Your task to perform on an android device: toggle priority inbox in the gmail app Image 0: 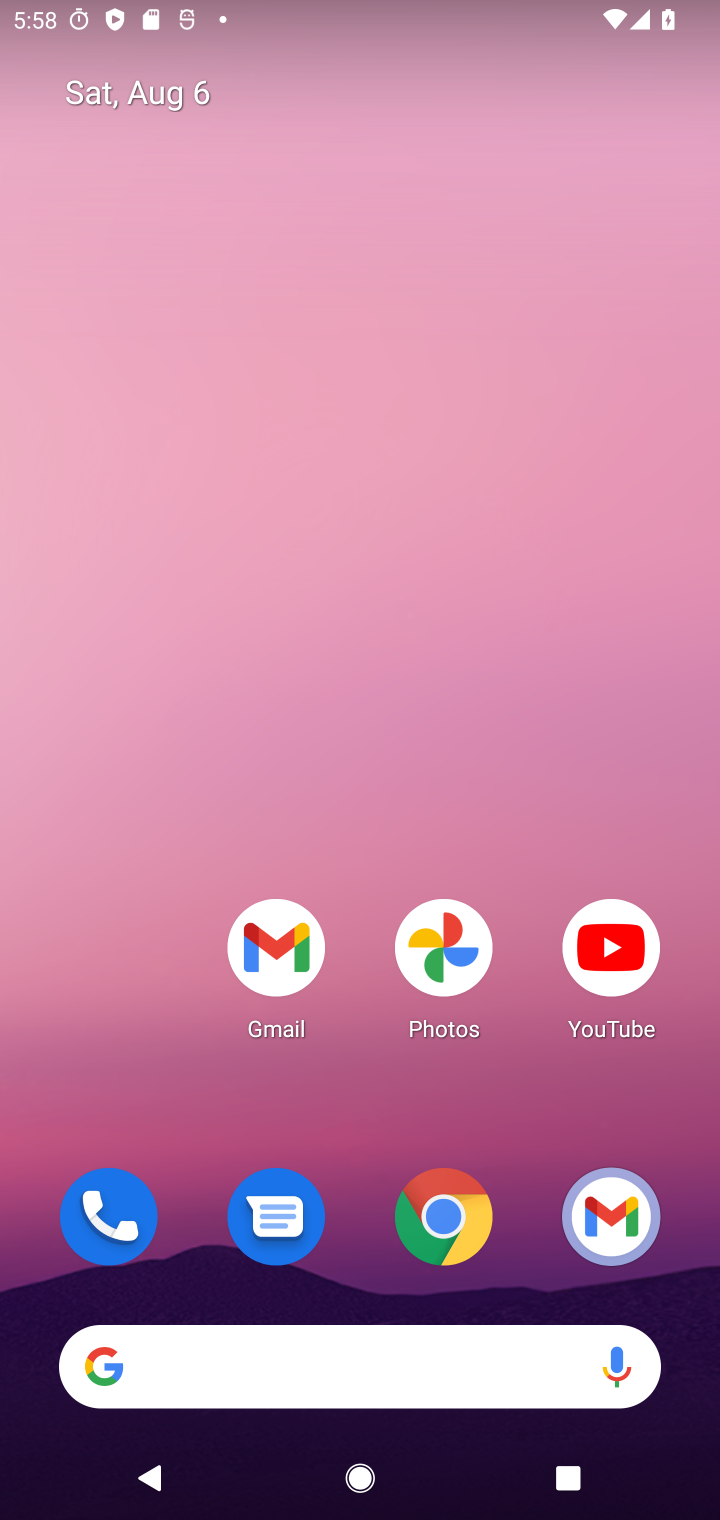
Step 0: drag from (354, 907) to (305, 101)
Your task to perform on an android device: toggle priority inbox in the gmail app Image 1: 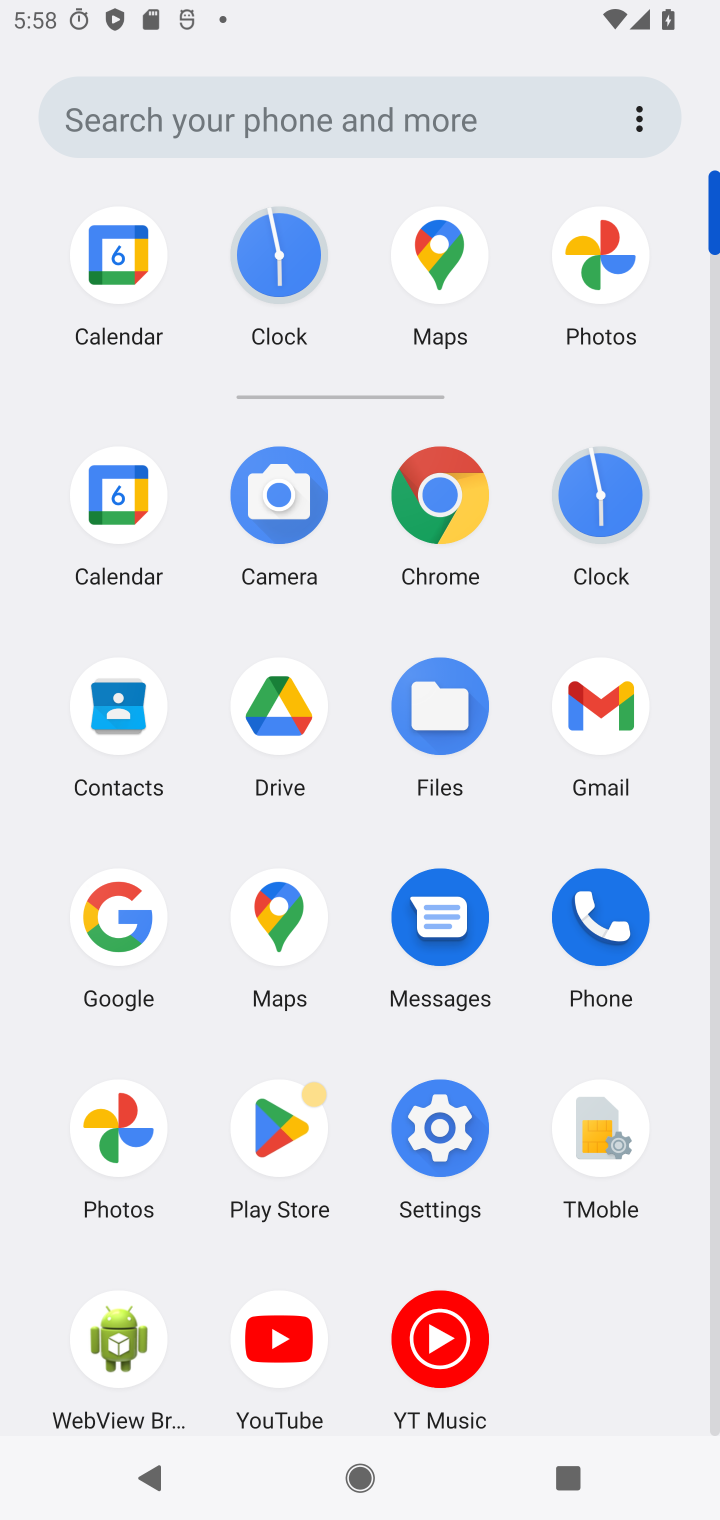
Step 1: click (603, 684)
Your task to perform on an android device: toggle priority inbox in the gmail app Image 2: 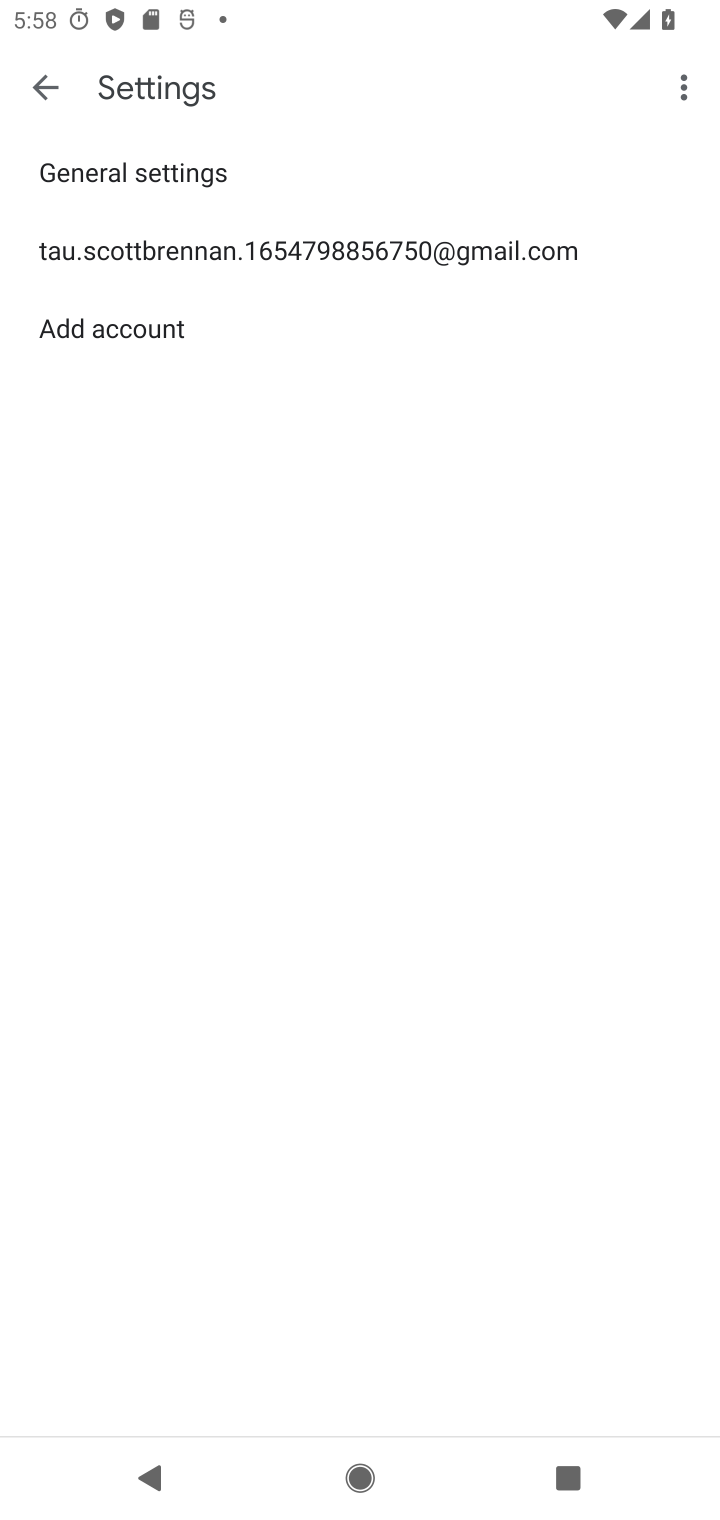
Step 2: click (274, 233)
Your task to perform on an android device: toggle priority inbox in the gmail app Image 3: 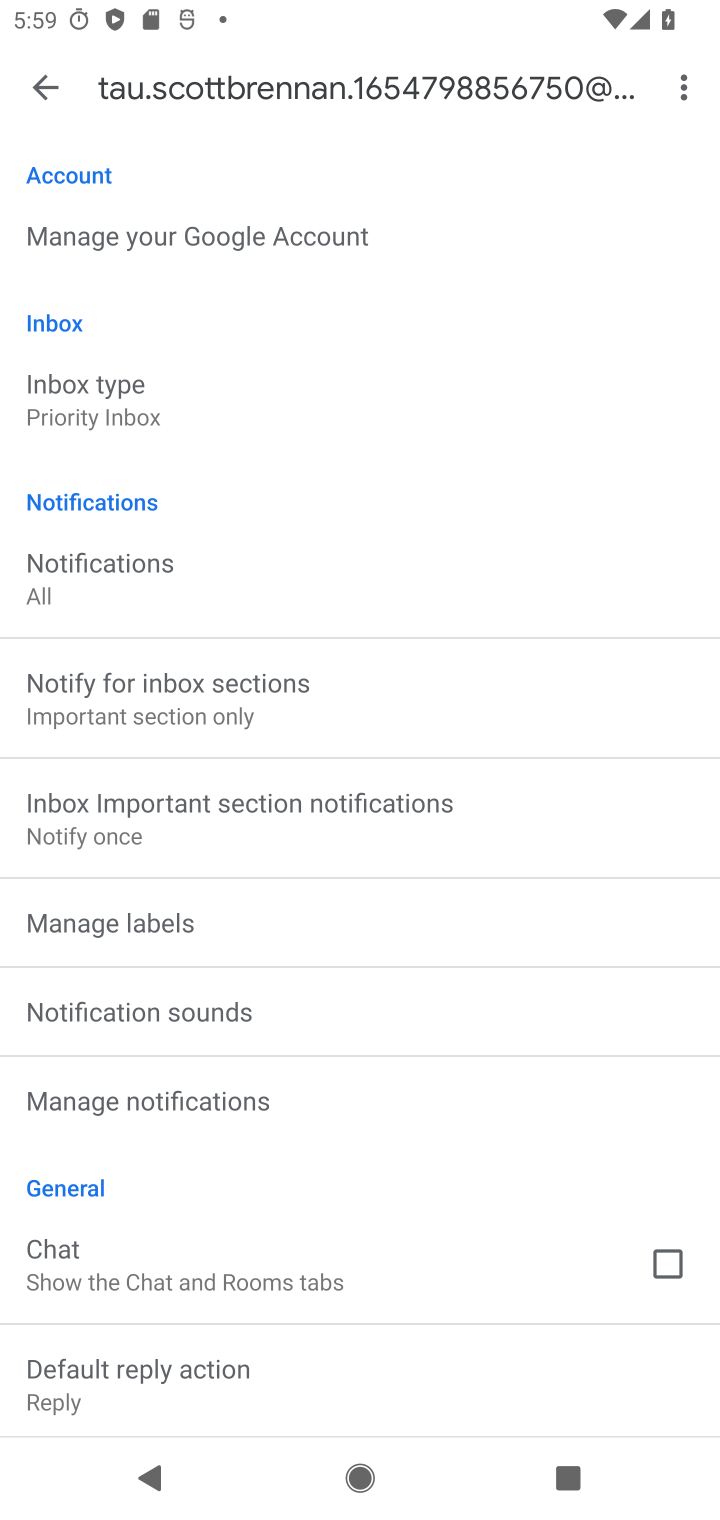
Step 3: click (109, 408)
Your task to perform on an android device: toggle priority inbox in the gmail app Image 4: 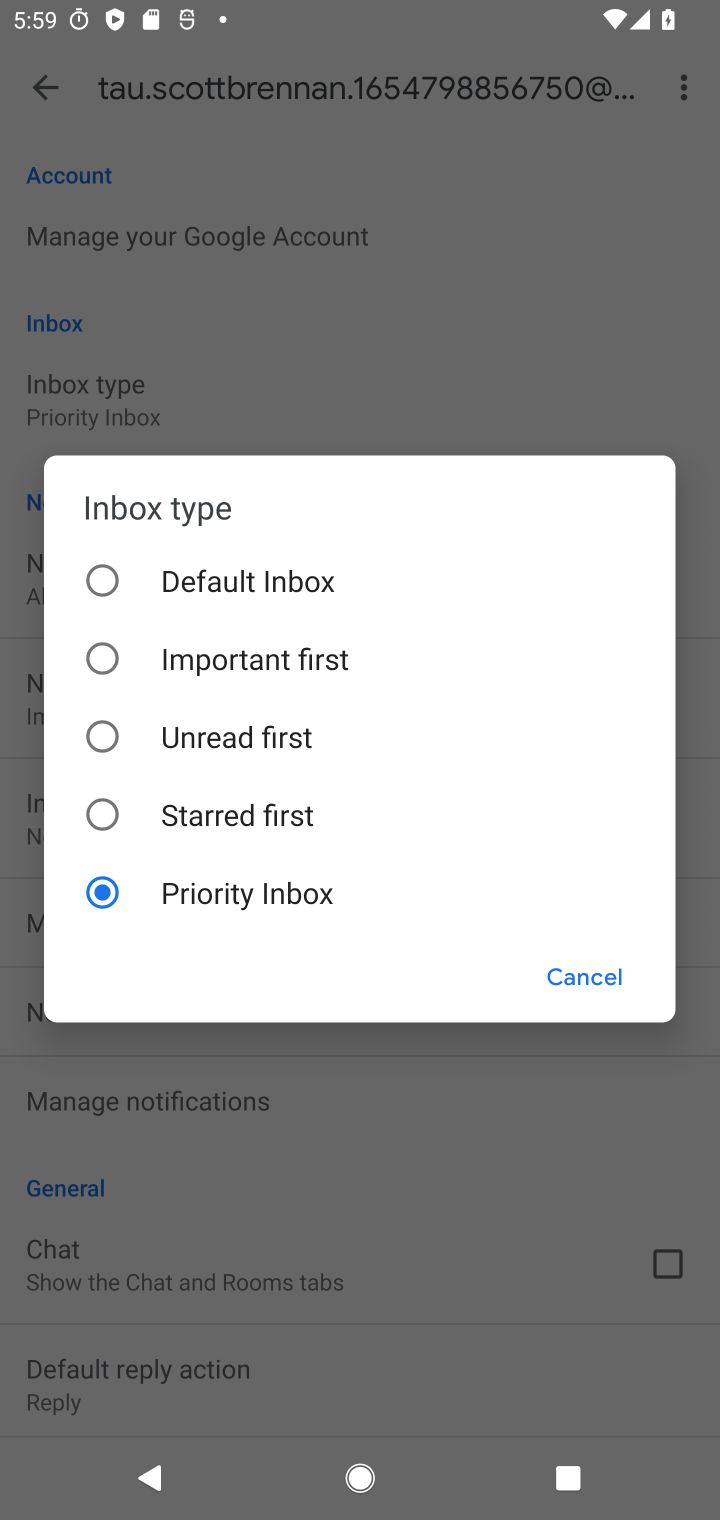
Step 4: click (247, 586)
Your task to perform on an android device: toggle priority inbox in the gmail app Image 5: 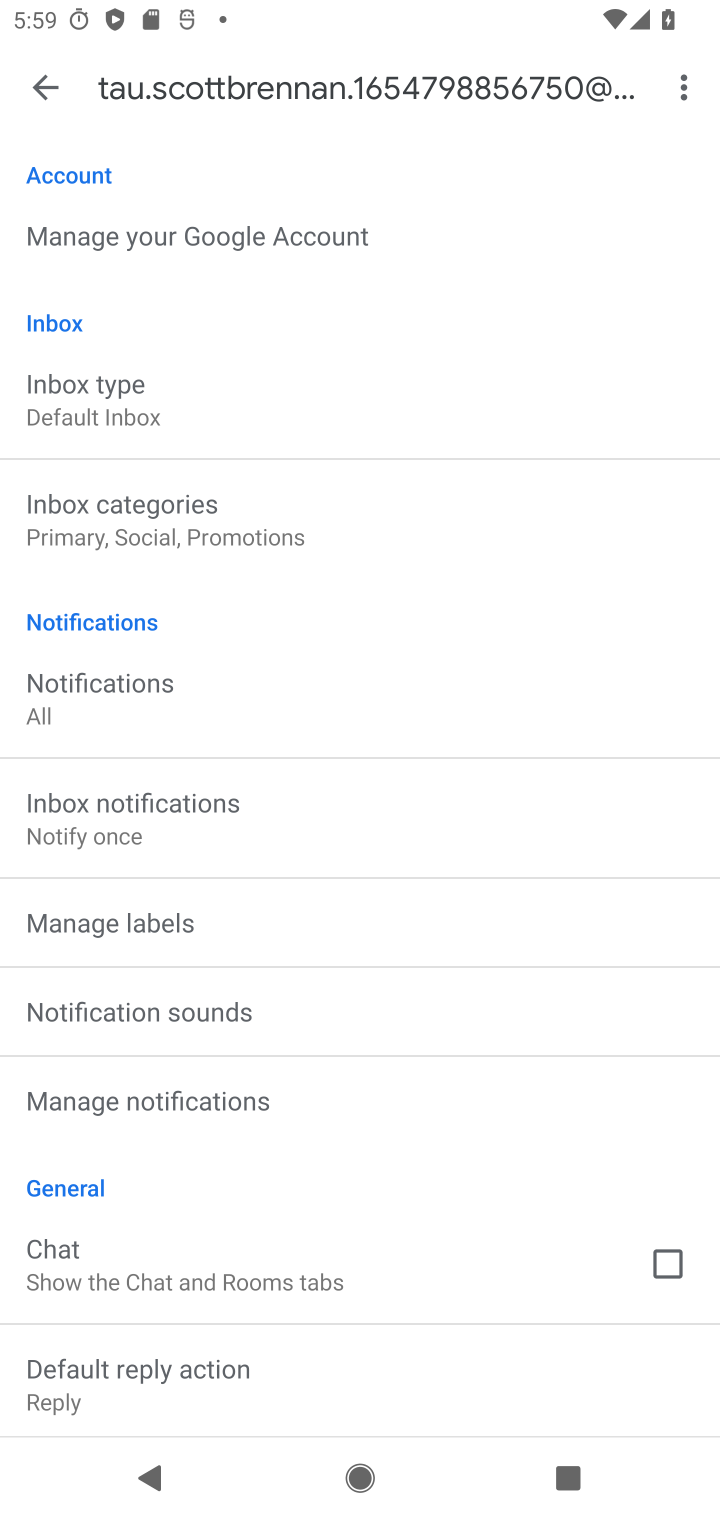
Step 5: task complete